Your task to perform on an android device: Go to Android settings Image 0: 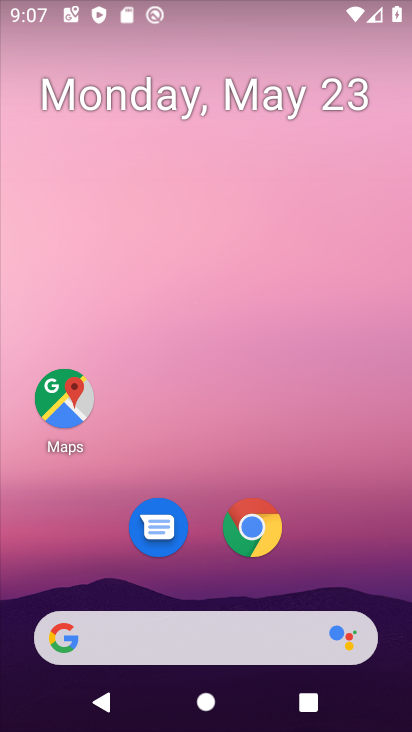
Step 0: drag from (264, 427) to (230, 3)
Your task to perform on an android device: Go to Android settings Image 1: 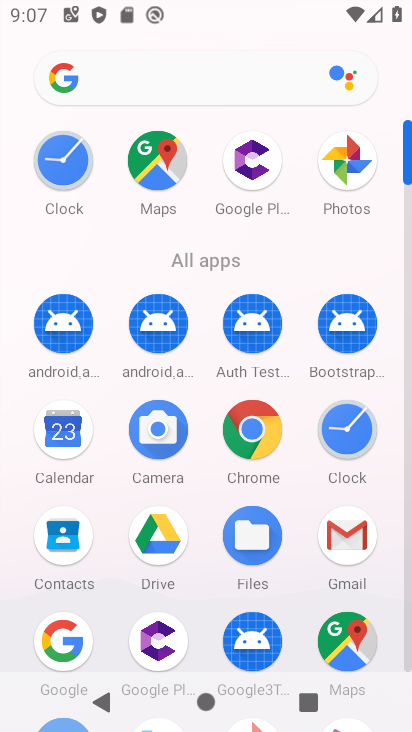
Step 1: drag from (236, 374) to (258, 65)
Your task to perform on an android device: Go to Android settings Image 2: 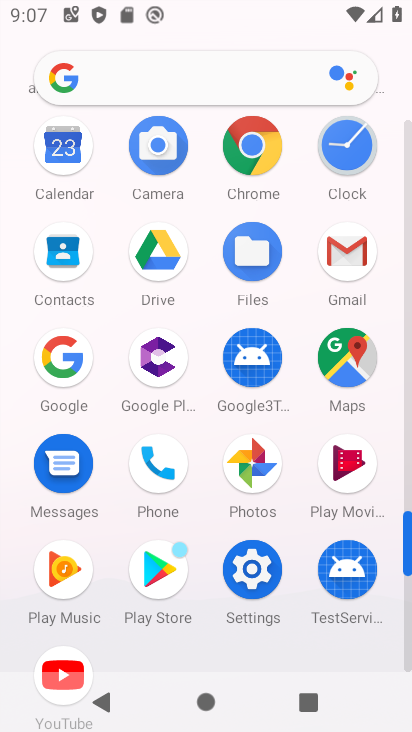
Step 2: click (259, 569)
Your task to perform on an android device: Go to Android settings Image 3: 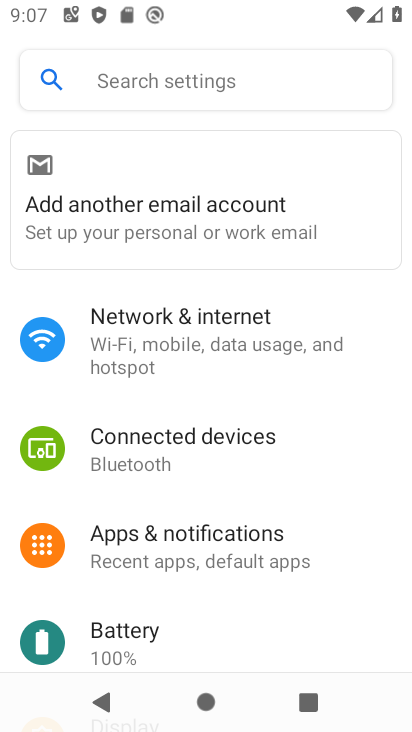
Step 3: drag from (259, 564) to (252, 121)
Your task to perform on an android device: Go to Android settings Image 4: 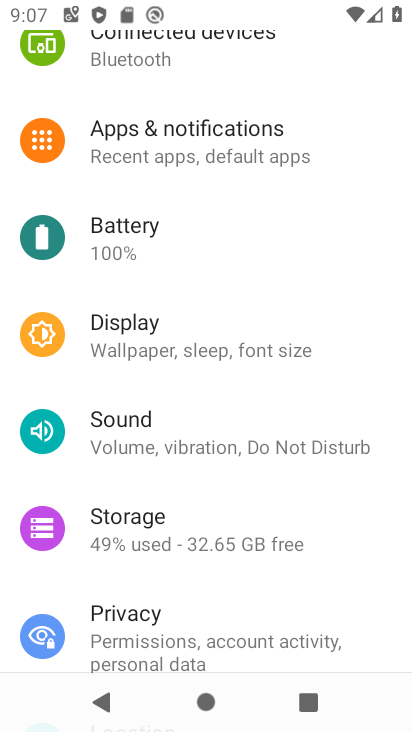
Step 4: drag from (192, 550) to (265, 35)
Your task to perform on an android device: Go to Android settings Image 5: 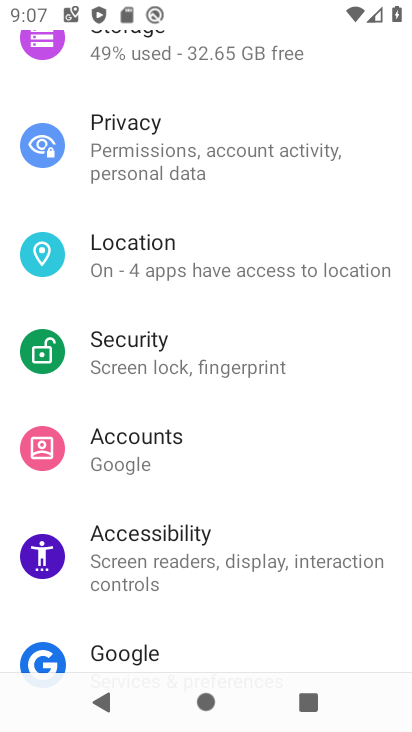
Step 5: drag from (248, 450) to (285, 110)
Your task to perform on an android device: Go to Android settings Image 6: 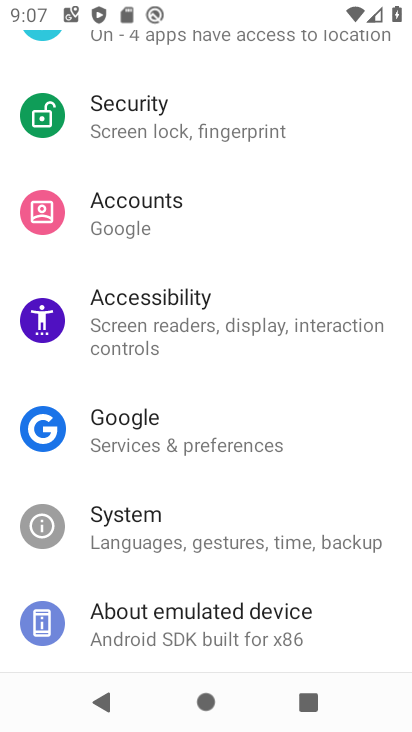
Step 6: click (254, 600)
Your task to perform on an android device: Go to Android settings Image 7: 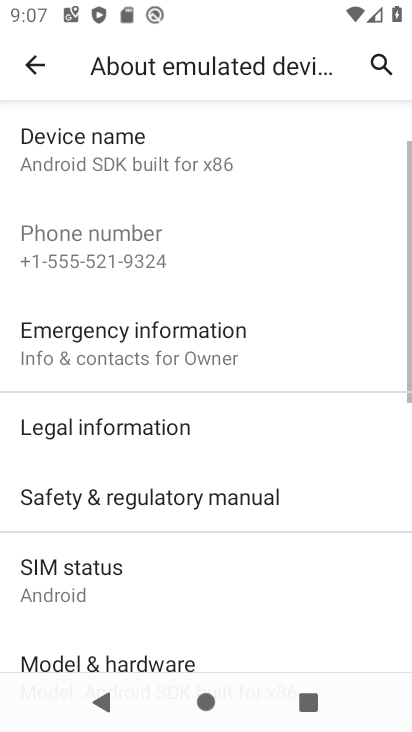
Step 7: task complete